Your task to perform on an android device: delete browsing data in the chrome app Image 0: 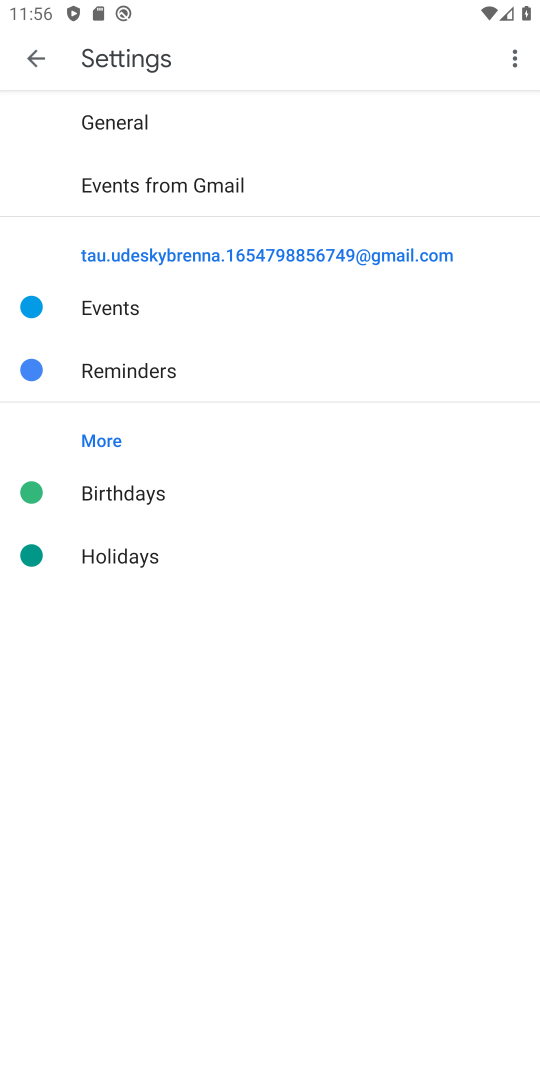
Step 0: press home button
Your task to perform on an android device: delete browsing data in the chrome app Image 1: 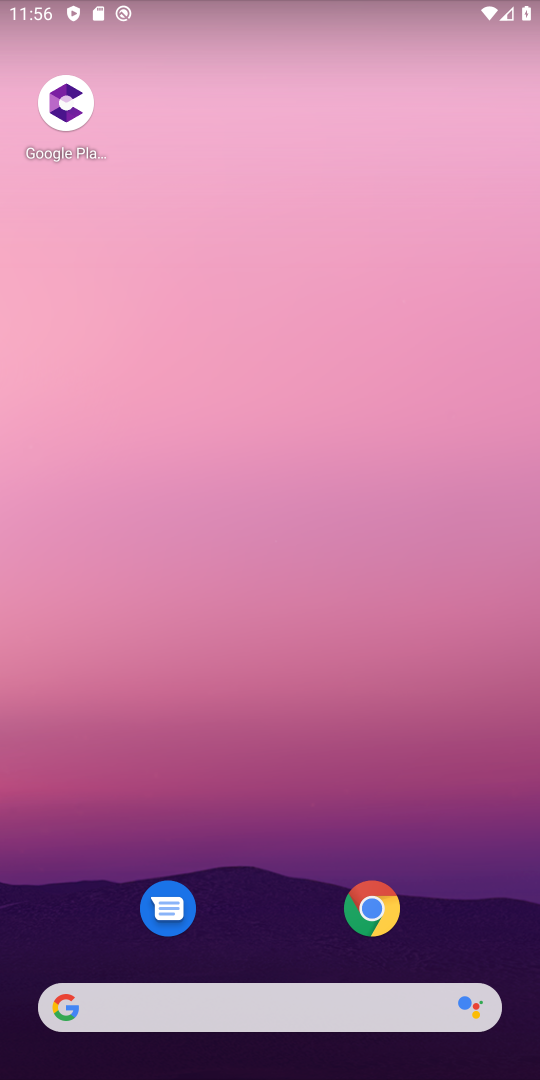
Step 1: click (383, 919)
Your task to perform on an android device: delete browsing data in the chrome app Image 2: 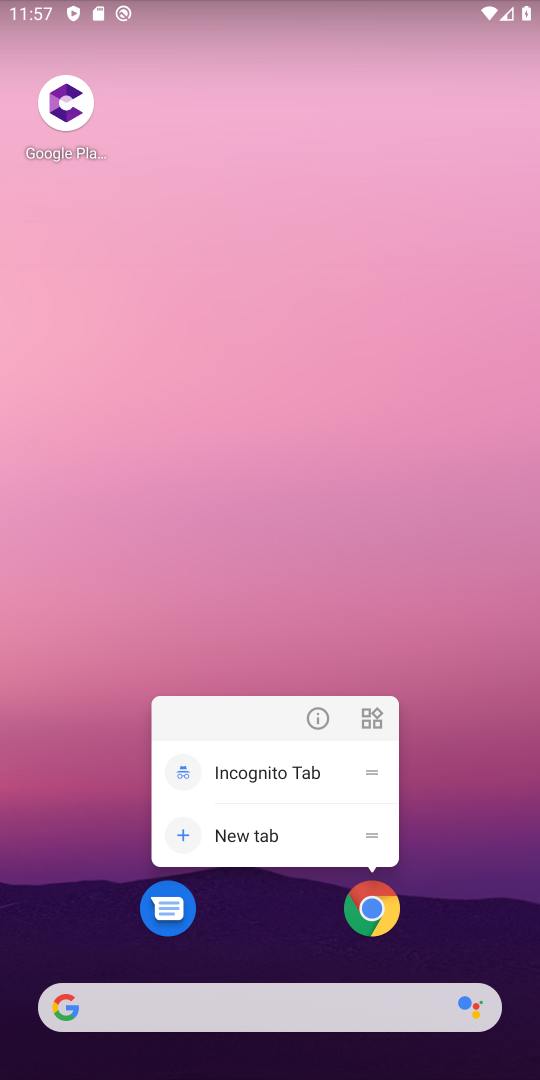
Step 2: click (361, 919)
Your task to perform on an android device: delete browsing data in the chrome app Image 3: 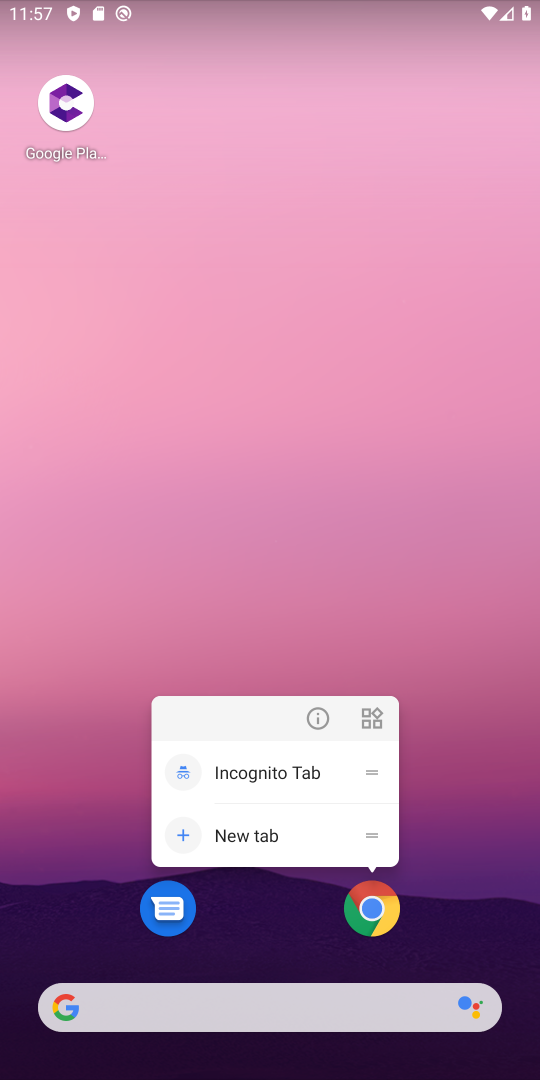
Step 3: click (361, 919)
Your task to perform on an android device: delete browsing data in the chrome app Image 4: 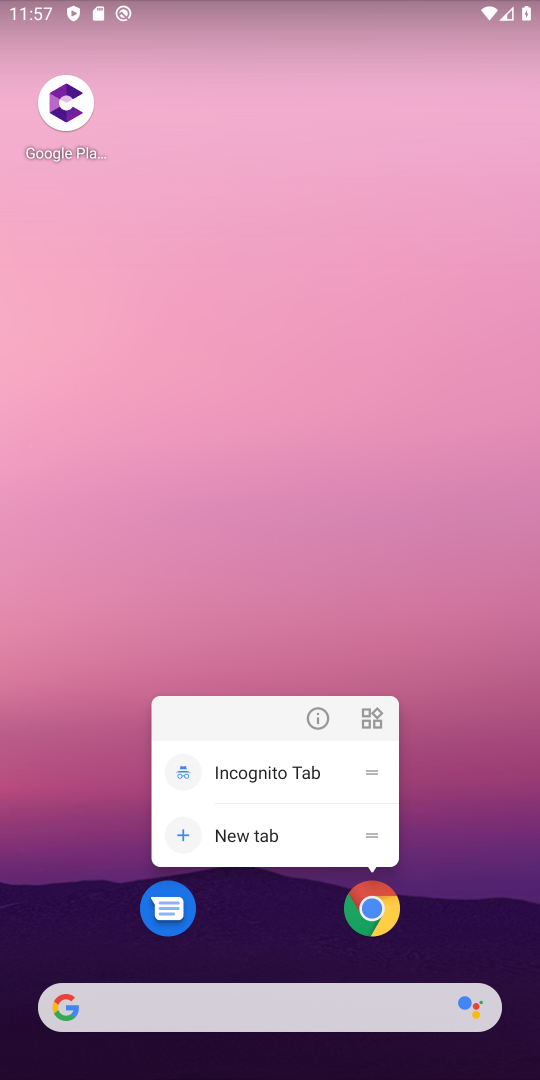
Step 4: click (386, 928)
Your task to perform on an android device: delete browsing data in the chrome app Image 5: 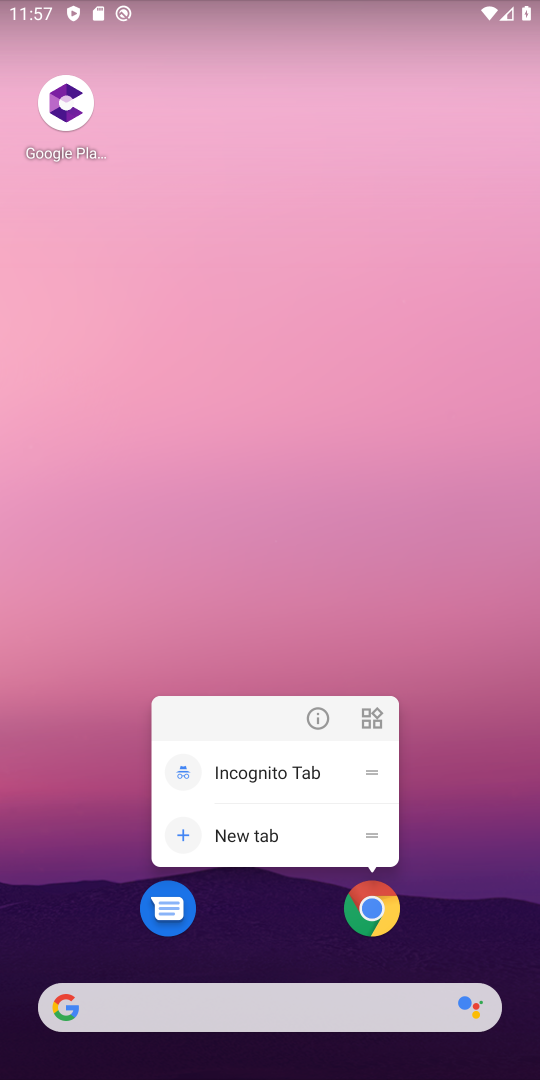
Step 5: click (386, 928)
Your task to perform on an android device: delete browsing data in the chrome app Image 6: 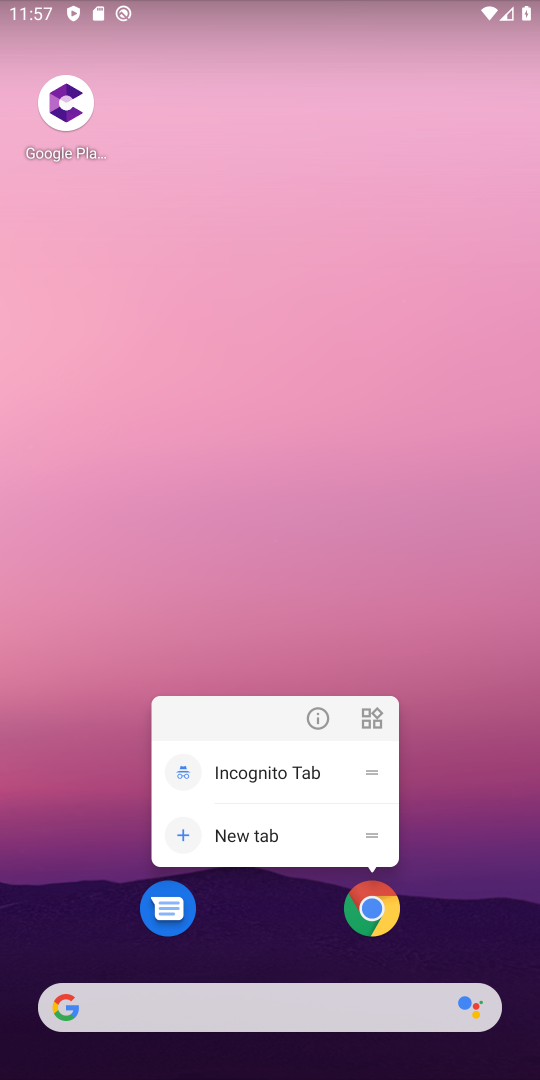
Step 6: click (365, 913)
Your task to perform on an android device: delete browsing data in the chrome app Image 7: 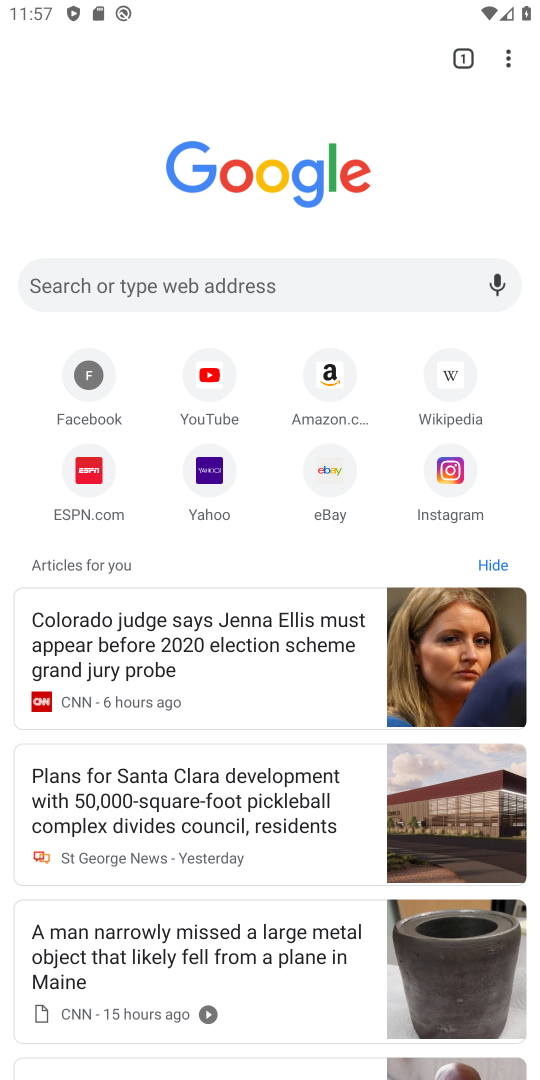
Step 7: click (509, 63)
Your task to perform on an android device: delete browsing data in the chrome app Image 8: 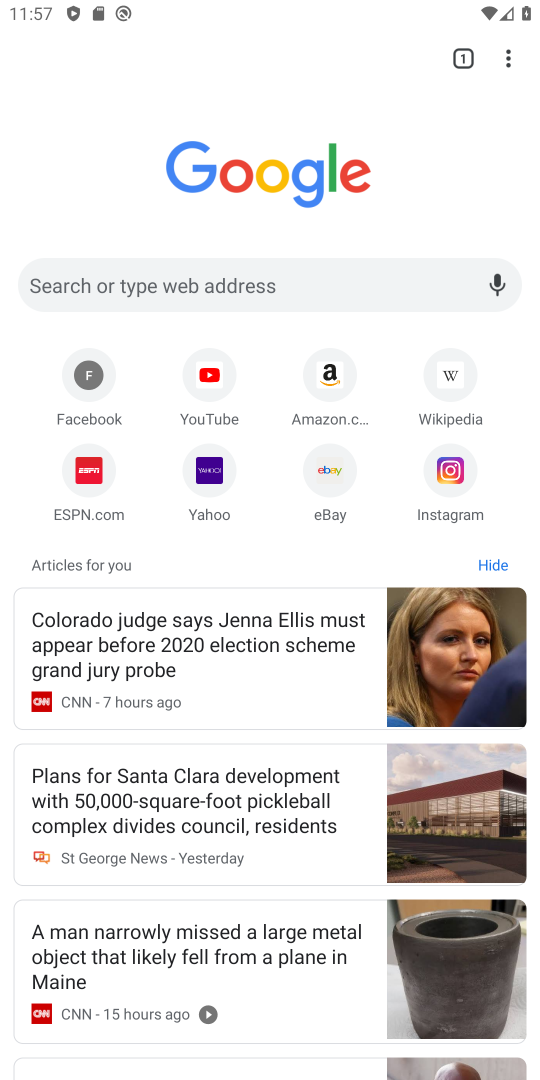
Step 8: click (507, 65)
Your task to perform on an android device: delete browsing data in the chrome app Image 9: 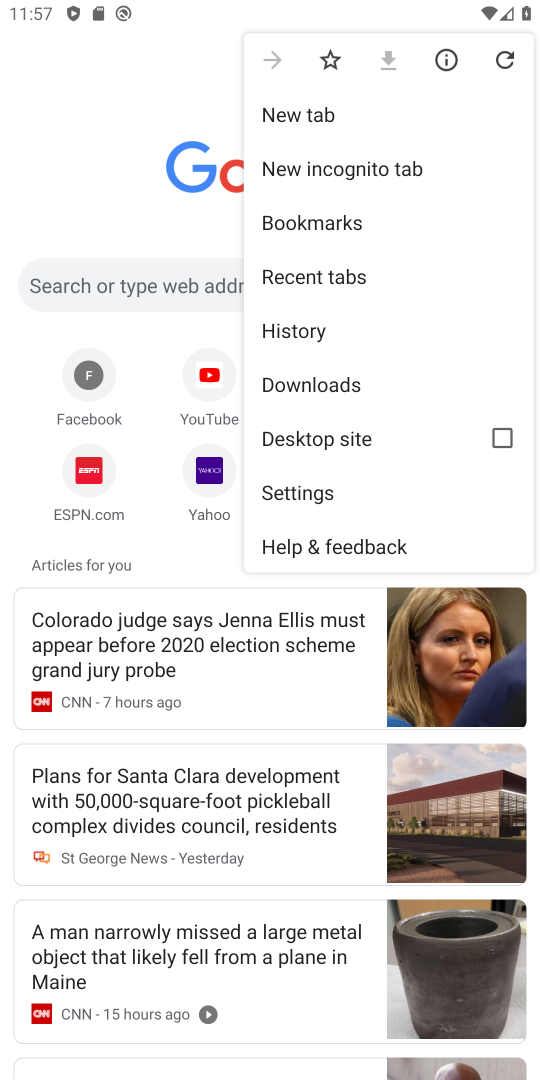
Step 9: click (331, 323)
Your task to perform on an android device: delete browsing data in the chrome app Image 10: 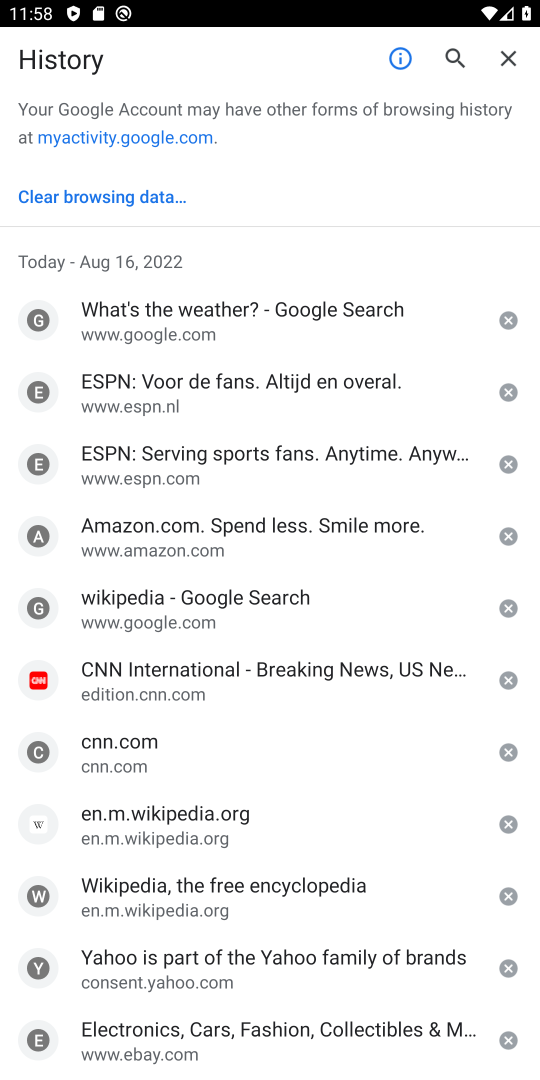
Step 10: click (149, 195)
Your task to perform on an android device: delete browsing data in the chrome app Image 11: 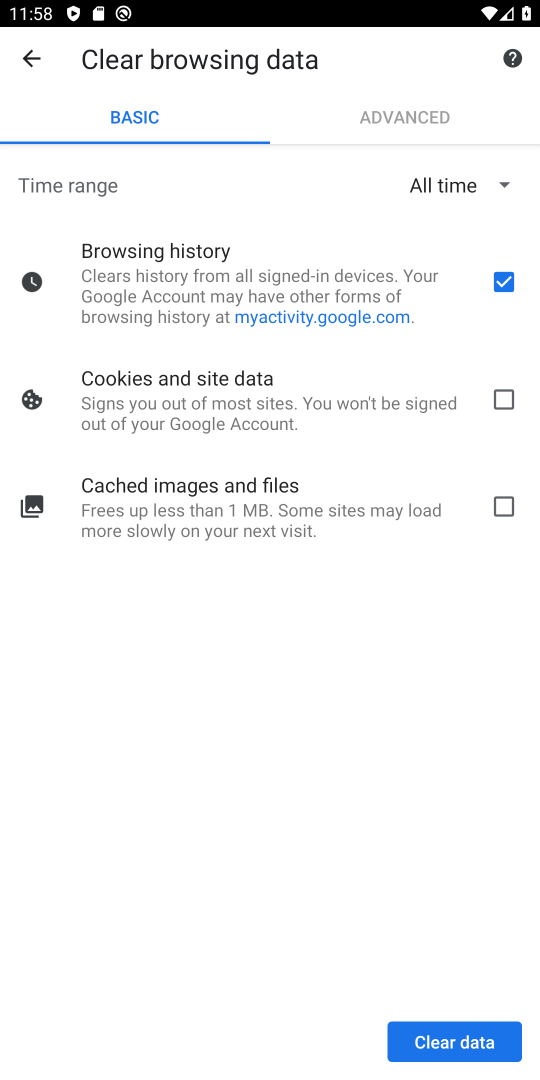
Step 11: click (518, 413)
Your task to perform on an android device: delete browsing data in the chrome app Image 12: 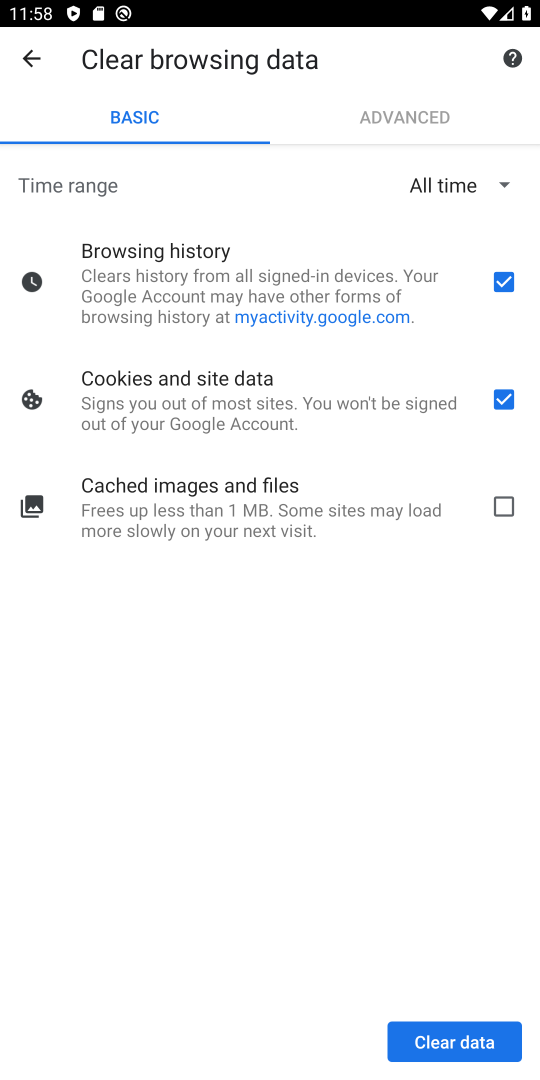
Step 12: click (500, 499)
Your task to perform on an android device: delete browsing data in the chrome app Image 13: 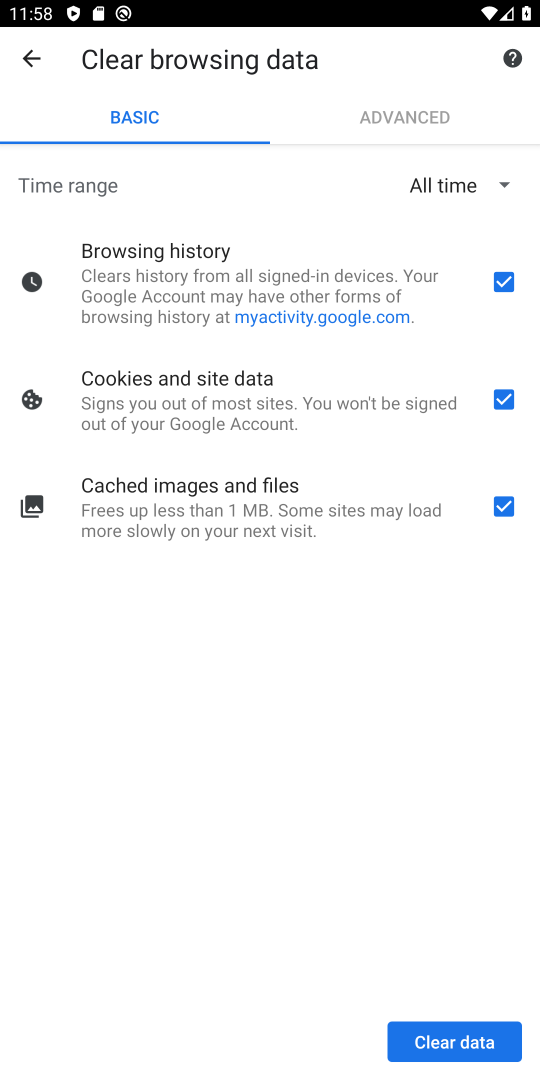
Step 13: click (495, 1042)
Your task to perform on an android device: delete browsing data in the chrome app Image 14: 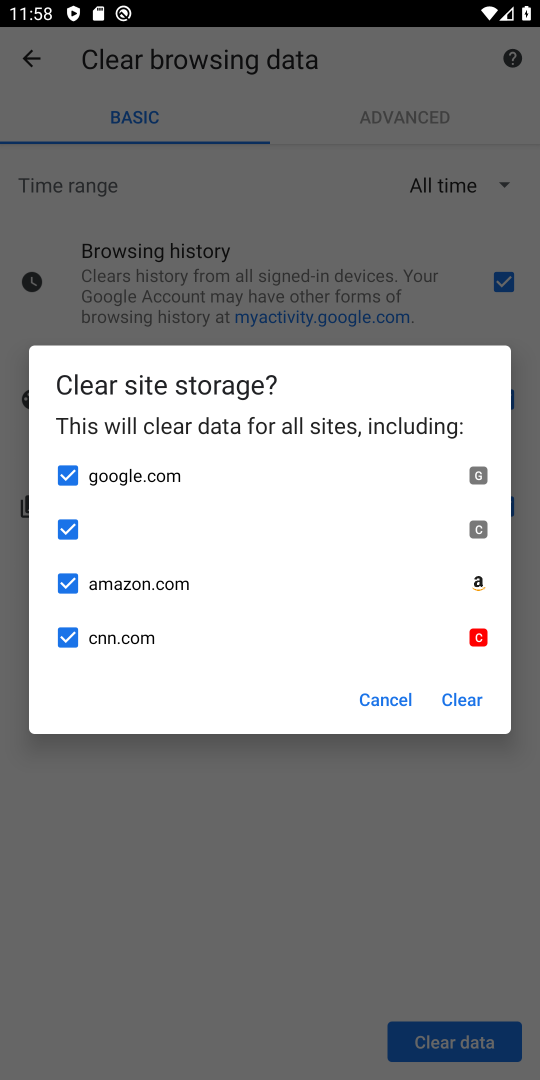
Step 14: click (466, 699)
Your task to perform on an android device: delete browsing data in the chrome app Image 15: 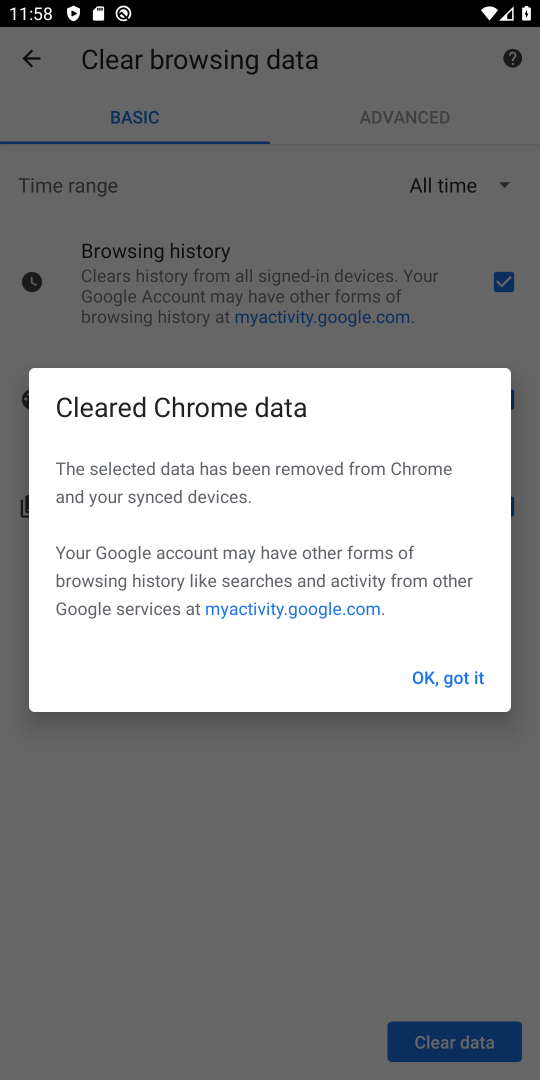
Step 15: click (455, 680)
Your task to perform on an android device: delete browsing data in the chrome app Image 16: 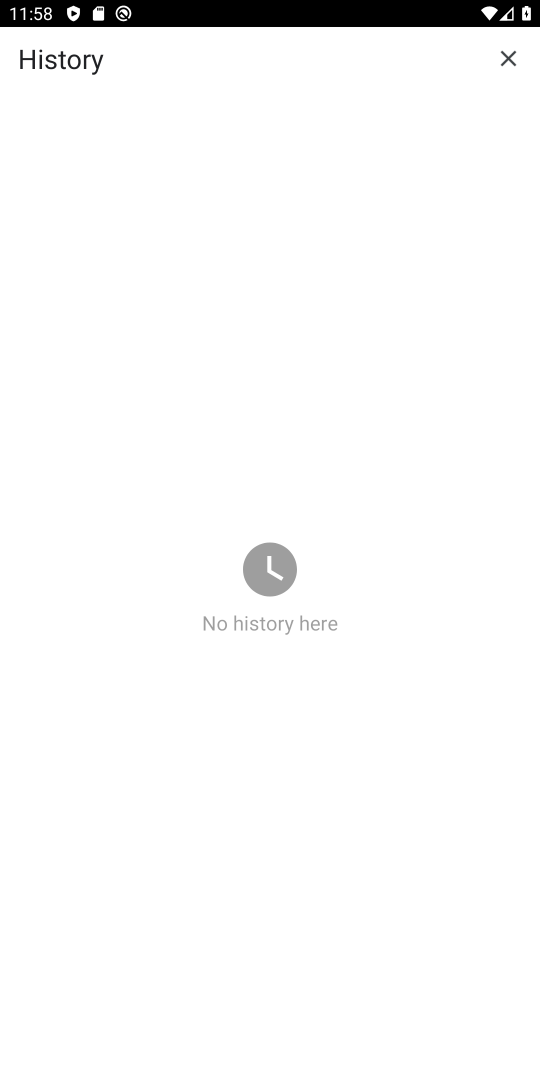
Step 16: task complete